Your task to perform on an android device: turn off data saver in the chrome app Image 0: 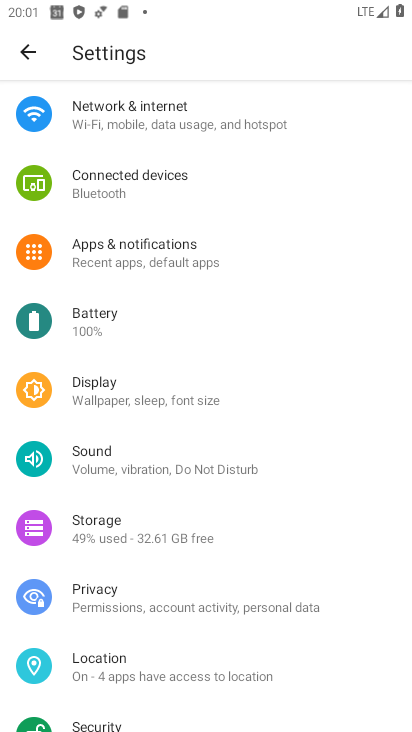
Step 0: press home button
Your task to perform on an android device: turn off data saver in the chrome app Image 1: 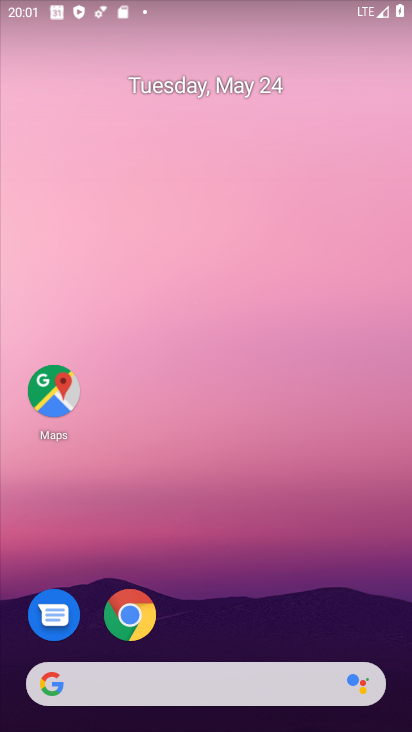
Step 1: drag from (235, 607) to (194, 267)
Your task to perform on an android device: turn off data saver in the chrome app Image 2: 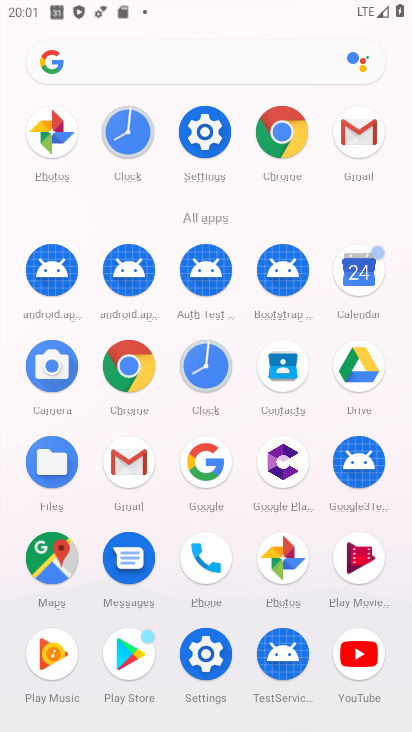
Step 2: click (281, 124)
Your task to perform on an android device: turn off data saver in the chrome app Image 3: 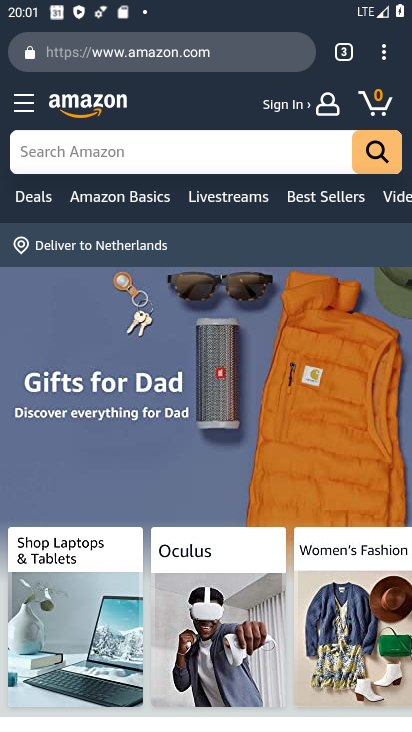
Step 3: click (382, 50)
Your task to perform on an android device: turn off data saver in the chrome app Image 4: 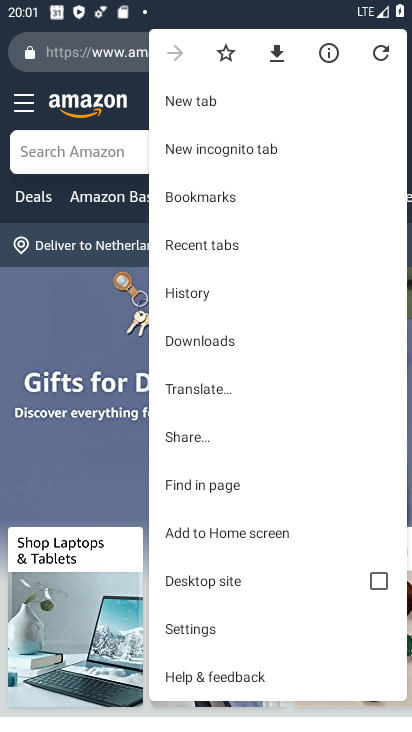
Step 4: click (203, 622)
Your task to perform on an android device: turn off data saver in the chrome app Image 5: 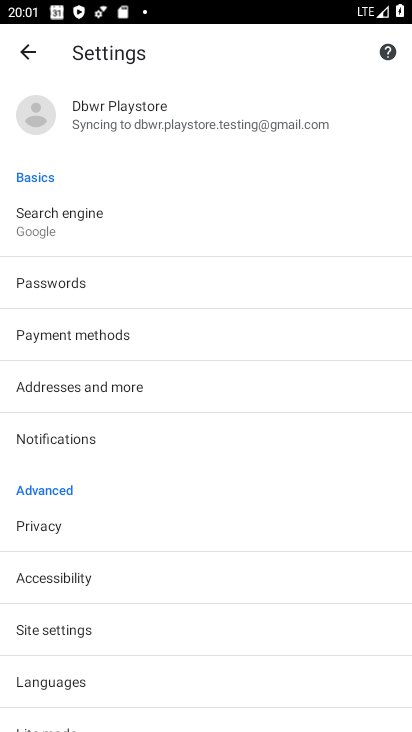
Step 5: task complete